Your task to perform on an android device: turn pop-ups off in chrome Image 0: 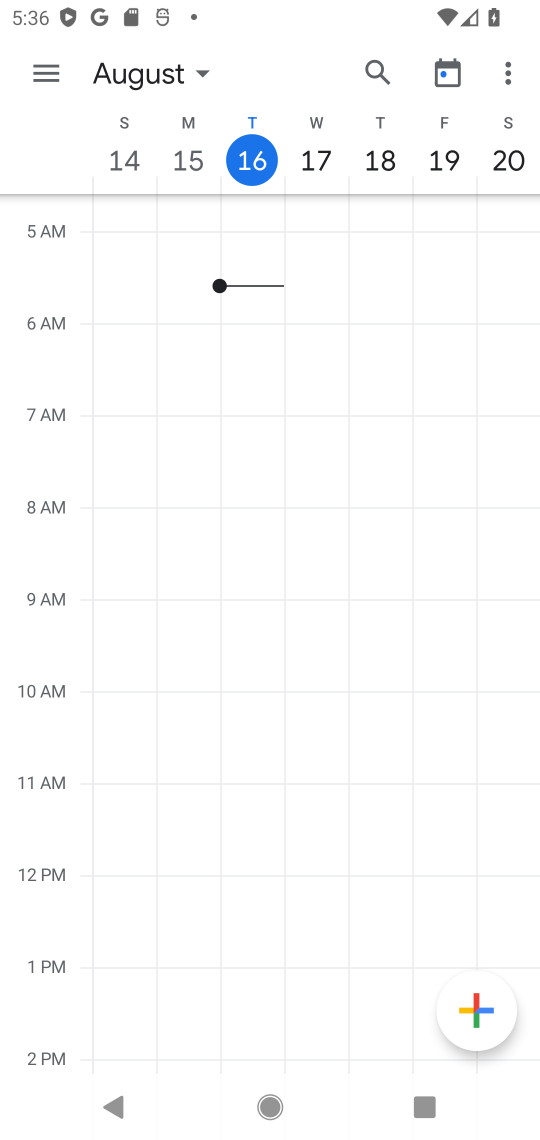
Step 0: press home button
Your task to perform on an android device: turn pop-ups off in chrome Image 1: 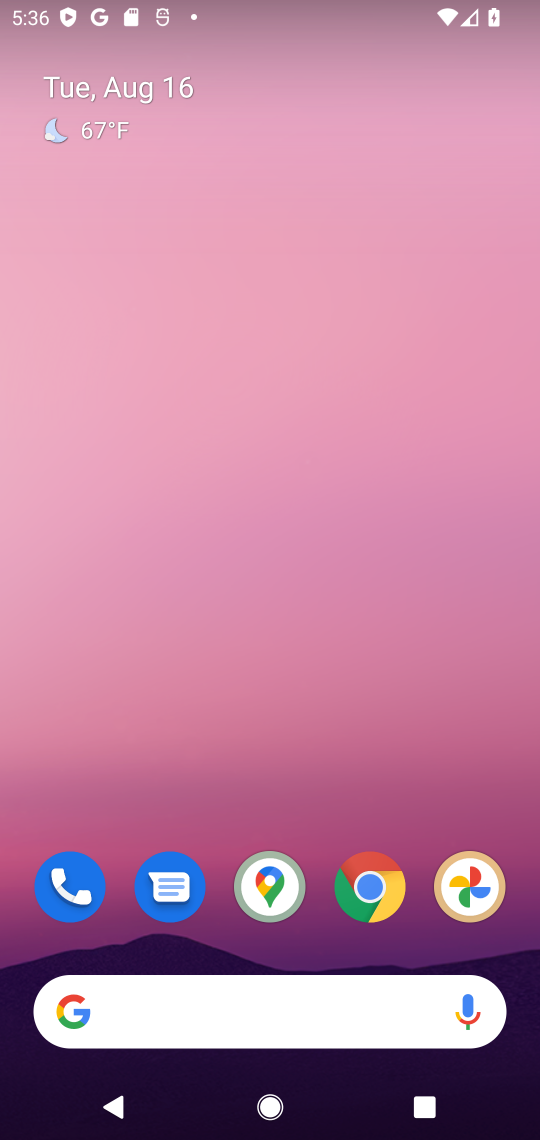
Step 1: drag from (308, 937) to (432, 5)
Your task to perform on an android device: turn pop-ups off in chrome Image 2: 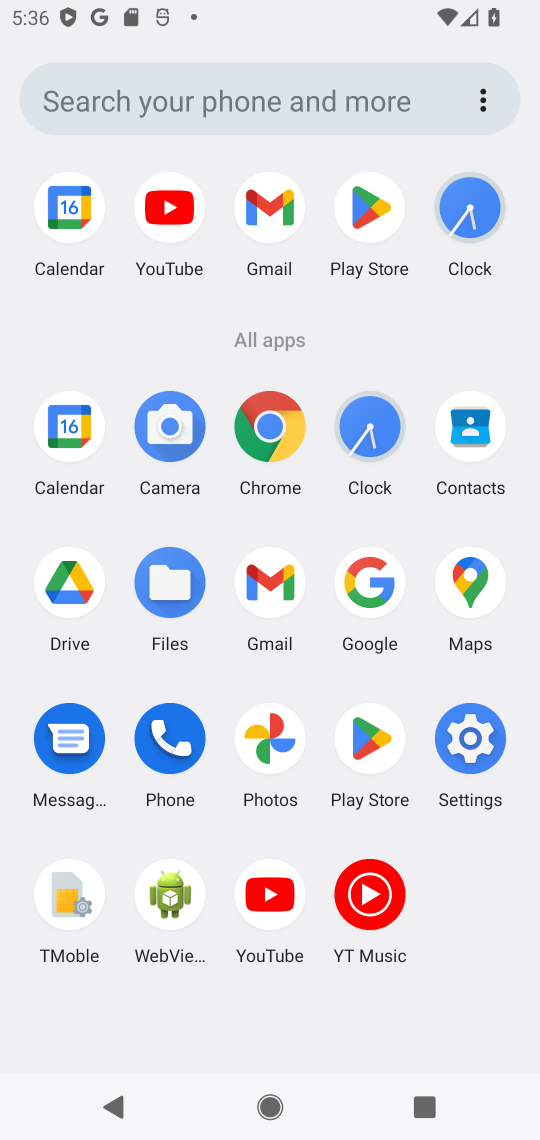
Step 2: click (258, 433)
Your task to perform on an android device: turn pop-ups off in chrome Image 3: 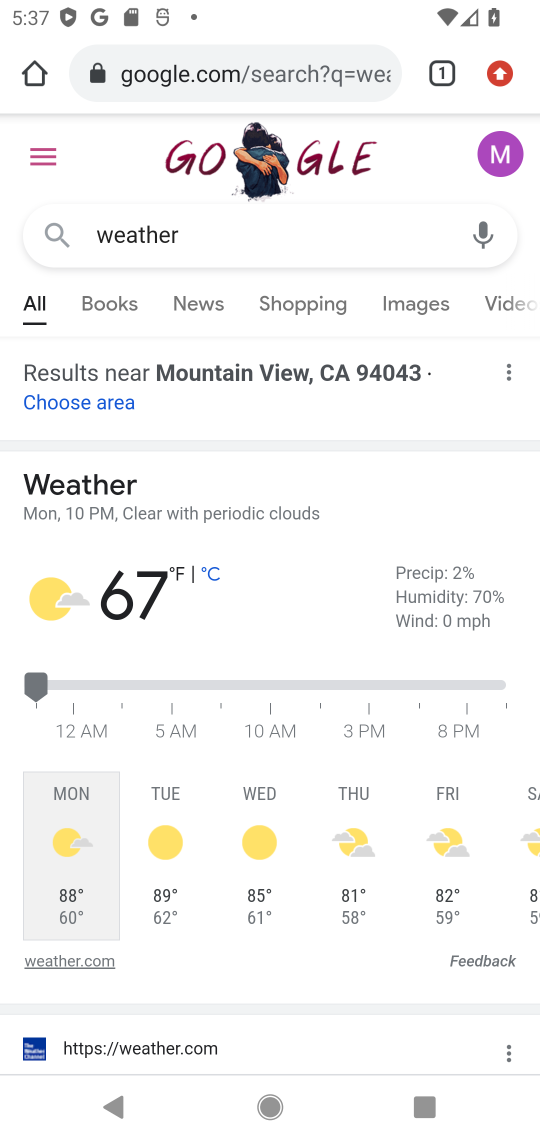
Step 3: drag from (524, 63) to (302, 944)
Your task to perform on an android device: turn pop-ups off in chrome Image 4: 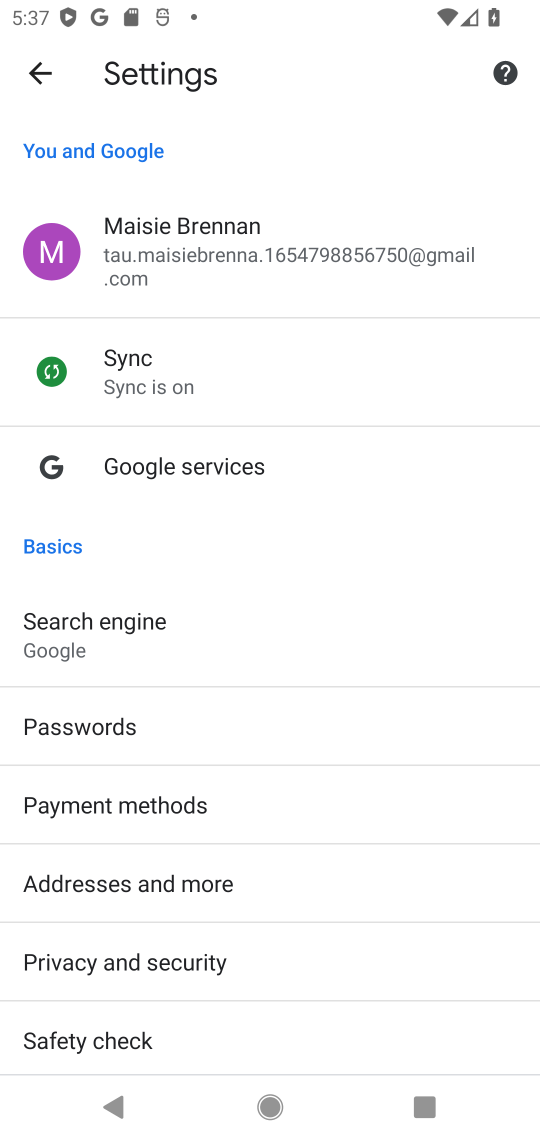
Step 4: drag from (303, 968) to (420, 309)
Your task to perform on an android device: turn pop-ups off in chrome Image 5: 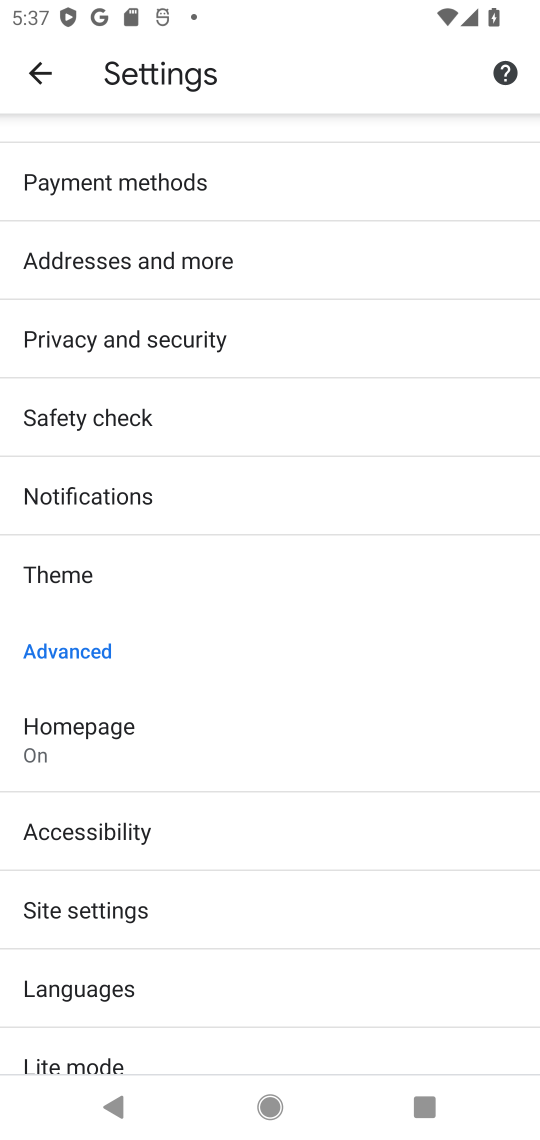
Step 5: click (117, 920)
Your task to perform on an android device: turn pop-ups off in chrome Image 6: 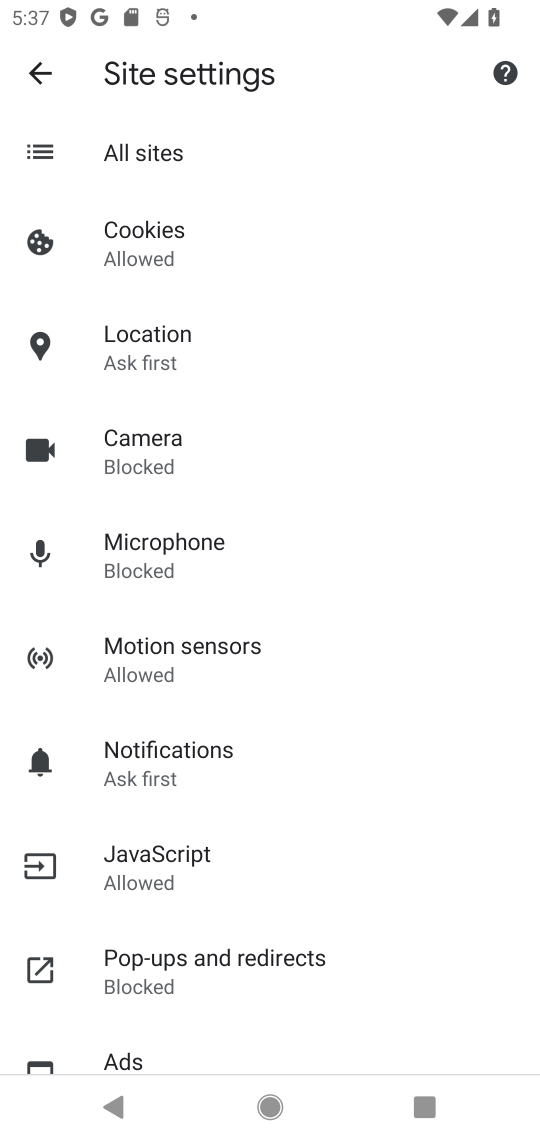
Step 6: click (259, 976)
Your task to perform on an android device: turn pop-ups off in chrome Image 7: 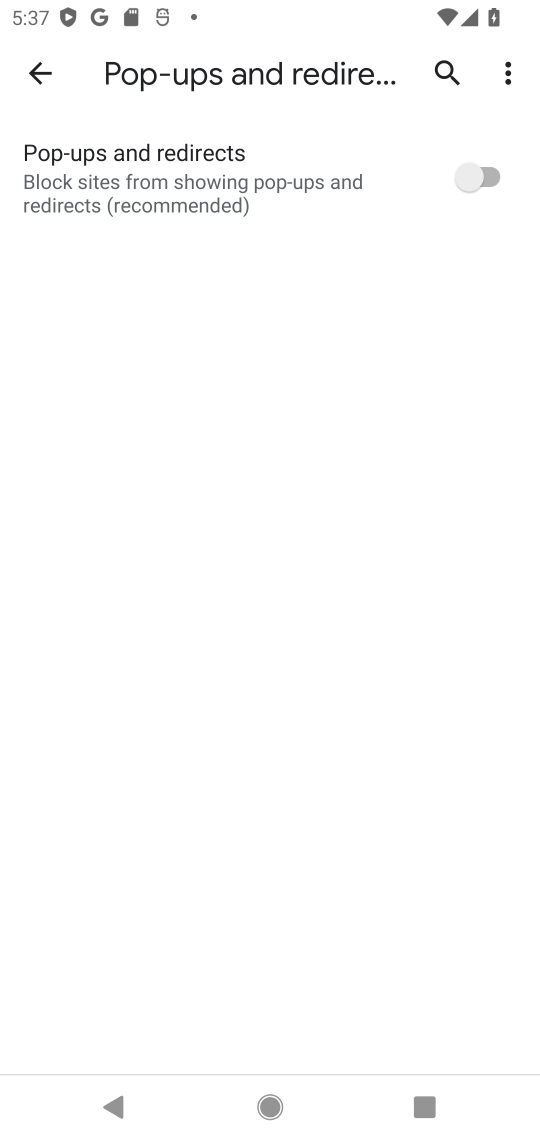
Step 7: task complete